Your task to perform on an android device: uninstall "Firefox Browser" Image 0: 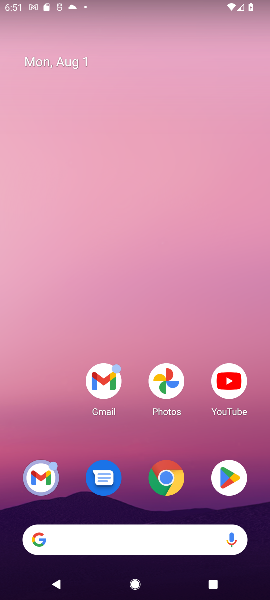
Step 0: press home button
Your task to perform on an android device: uninstall "Firefox Browser" Image 1: 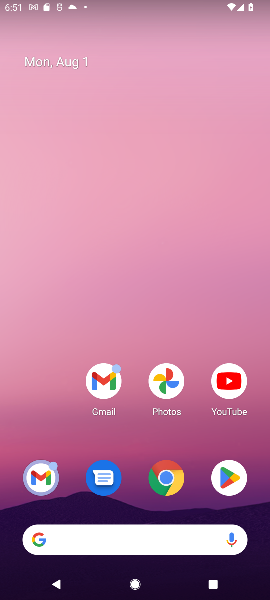
Step 1: click (230, 488)
Your task to perform on an android device: uninstall "Firefox Browser" Image 2: 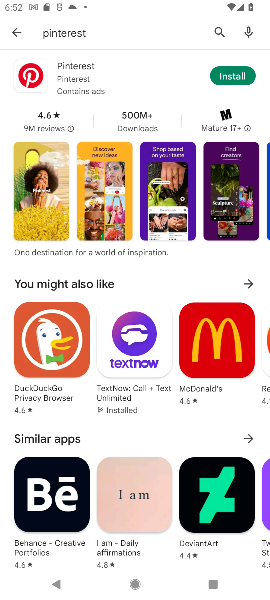
Step 2: click (213, 32)
Your task to perform on an android device: uninstall "Firefox Browser" Image 3: 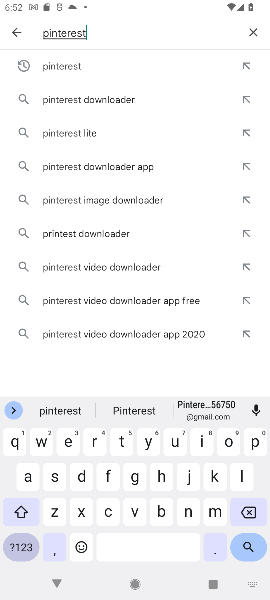
Step 3: click (251, 33)
Your task to perform on an android device: uninstall "Firefox Browser" Image 4: 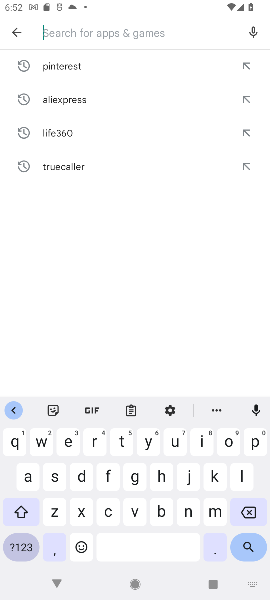
Step 4: click (105, 483)
Your task to perform on an android device: uninstall "Firefox Browser" Image 5: 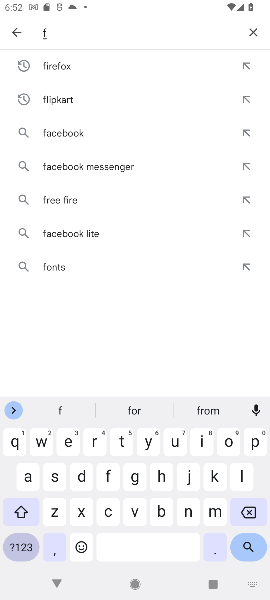
Step 5: click (202, 447)
Your task to perform on an android device: uninstall "Firefox Browser" Image 6: 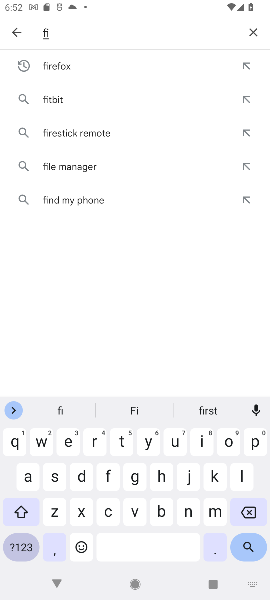
Step 6: click (74, 68)
Your task to perform on an android device: uninstall "Firefox Browser" Image 7: 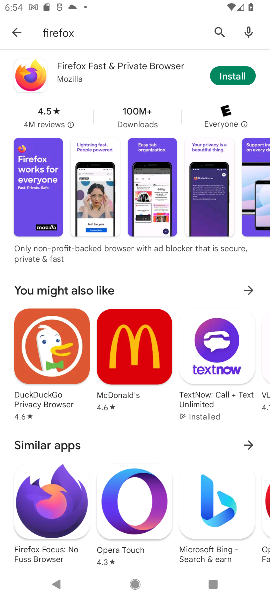
Step 7: task complete